Your task to perform on an android device: Open ESPN.com Image 0: 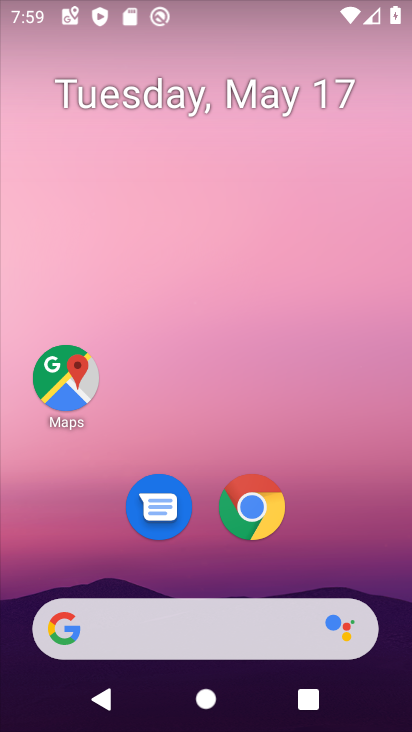
Step 0: drag from (331, 673) to (215, 3)
Your task to perform on an android device: Open ESPN.com Image 1: 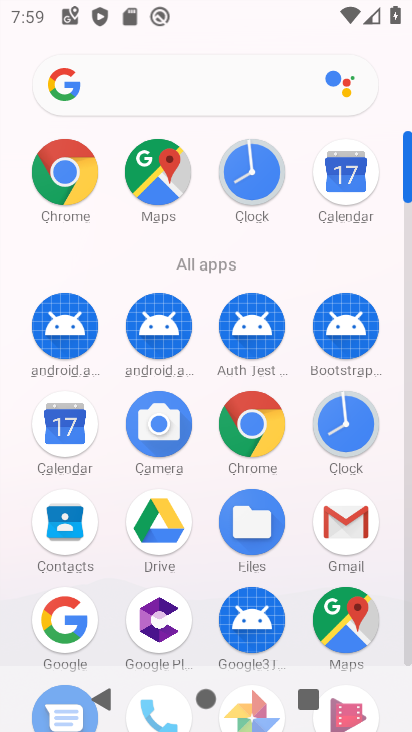
Step 1: click (81, 175)
Your task to perform on an android device: Open ESPN.com Image 2: 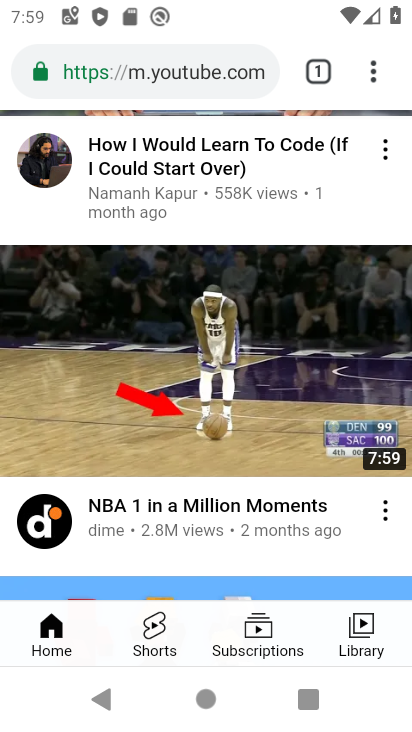
Step 2: drag from (159, 207) to (270, 529)
Your task to perform on an android device: Open ESPN.com Image 3: 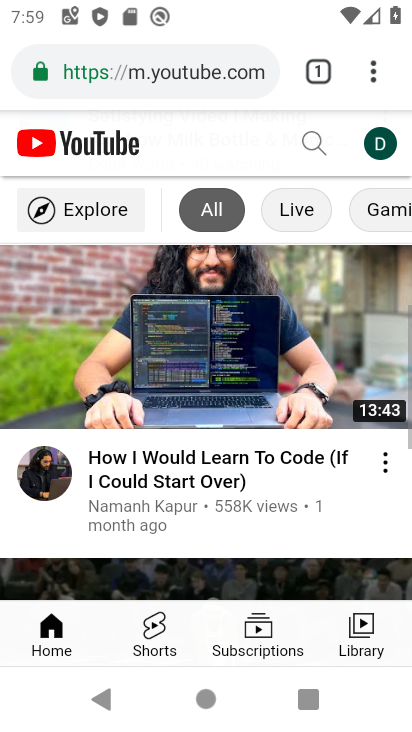
Step 3: drag from (241, 213) to (296, 514)
Your task to perform on an android device: Open ESPN.com Image 4: 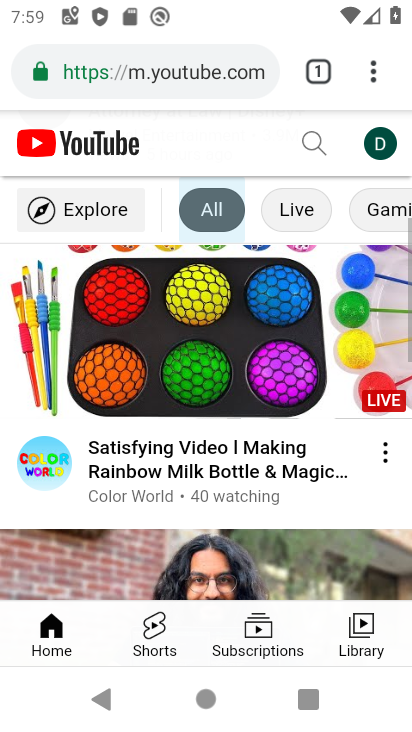
Step 4: drag from (222, 224) to (328, 678)
Your task to perform on an android device: Open ESPN.com Image 5: 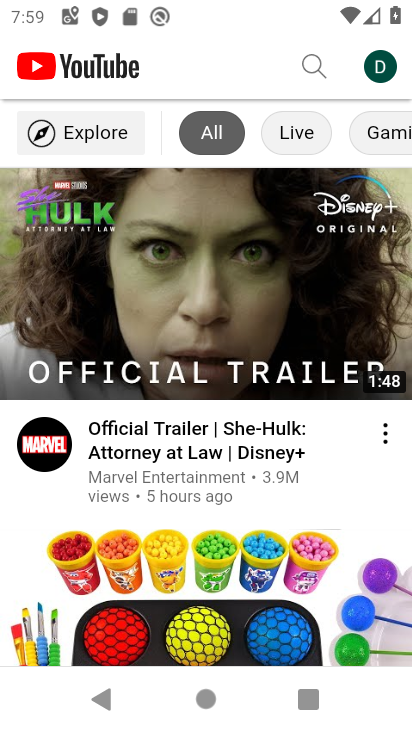
Step 5: press back button
Your task to perform on an android device: Open ESPN.com Image 6: 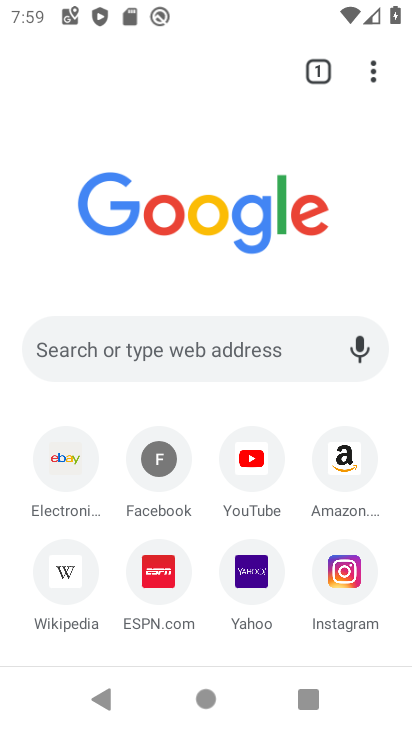
Step 6: click (154, 576)
Your task to perform on an android device: Open ESPN.com Image 7: 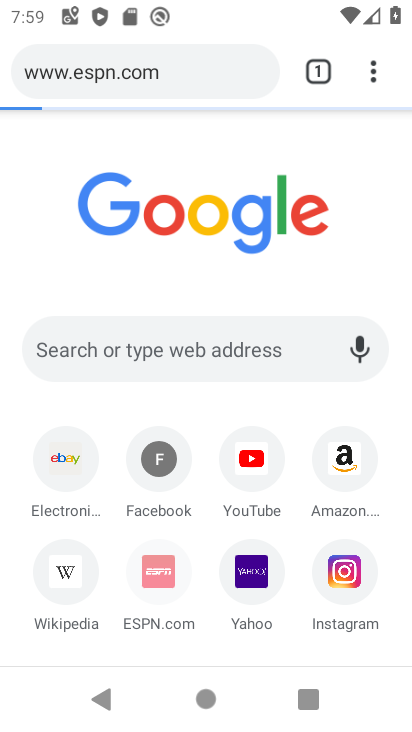
Step 7: click (154, 576)
Your task to perform on an android device: Open ESPN.com Image 8: 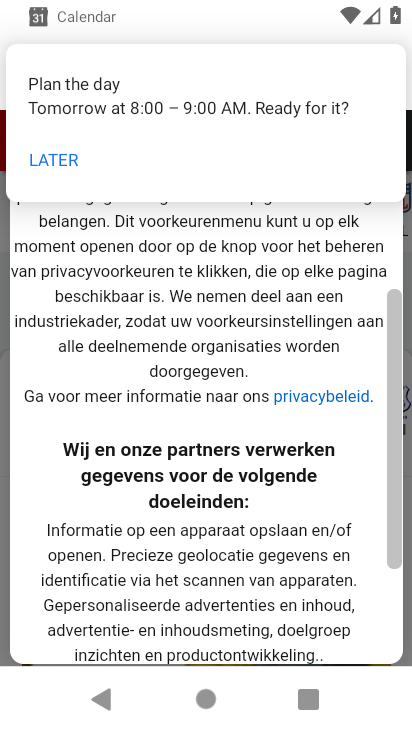
Step 8: task complete